Your task to perform on an android device: Show me some nice wallpapers for my phone Image 0: 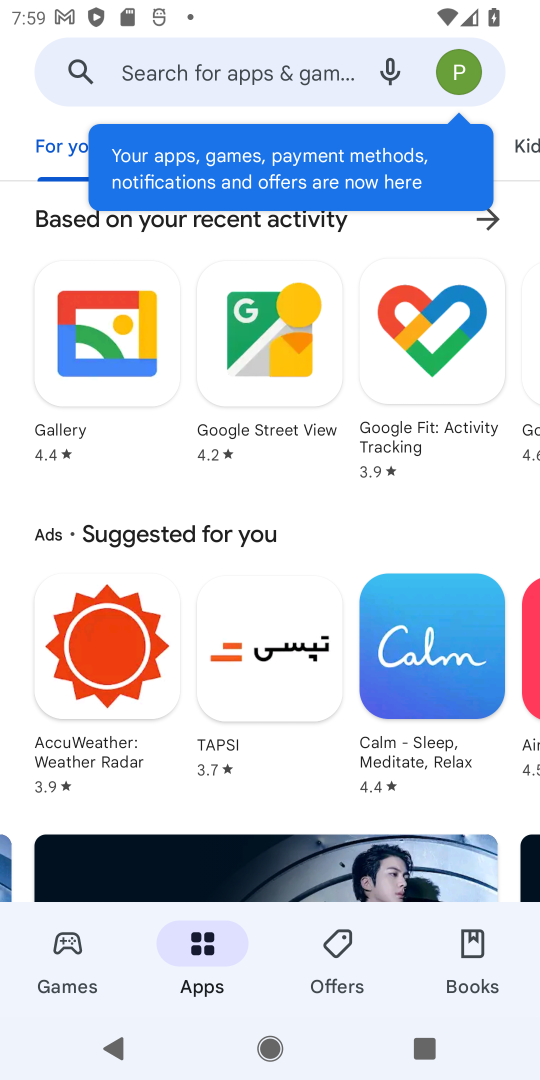
Step 0: click (252, 65)
Your task to perform on an android device: Show me some nice wallpapers for my phone Image 1: 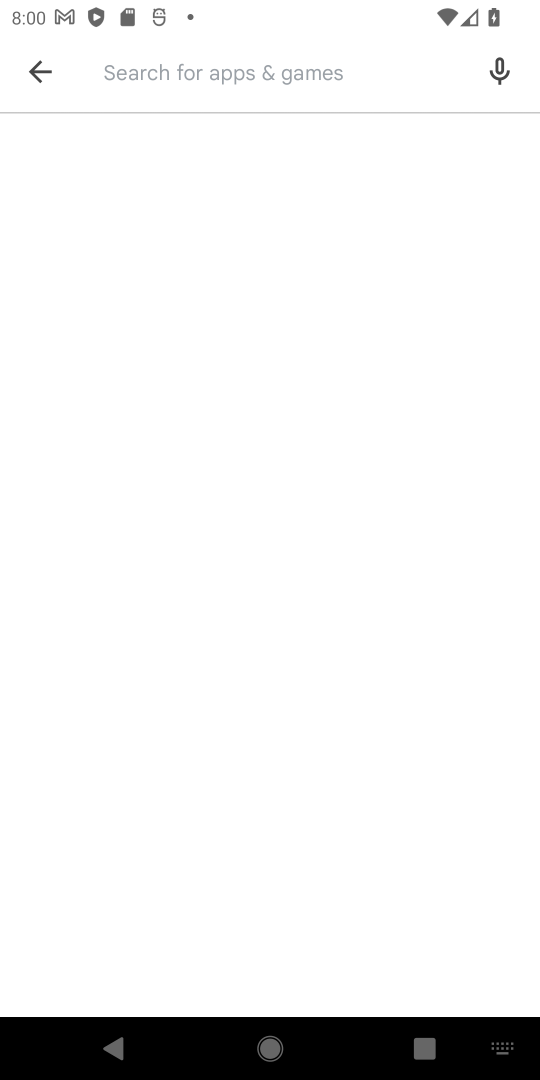
Step 1: type "some nice wallpapers for my phone"
Your task to perform on an android device: Show me some nice wallpapers for my phone Image 2: 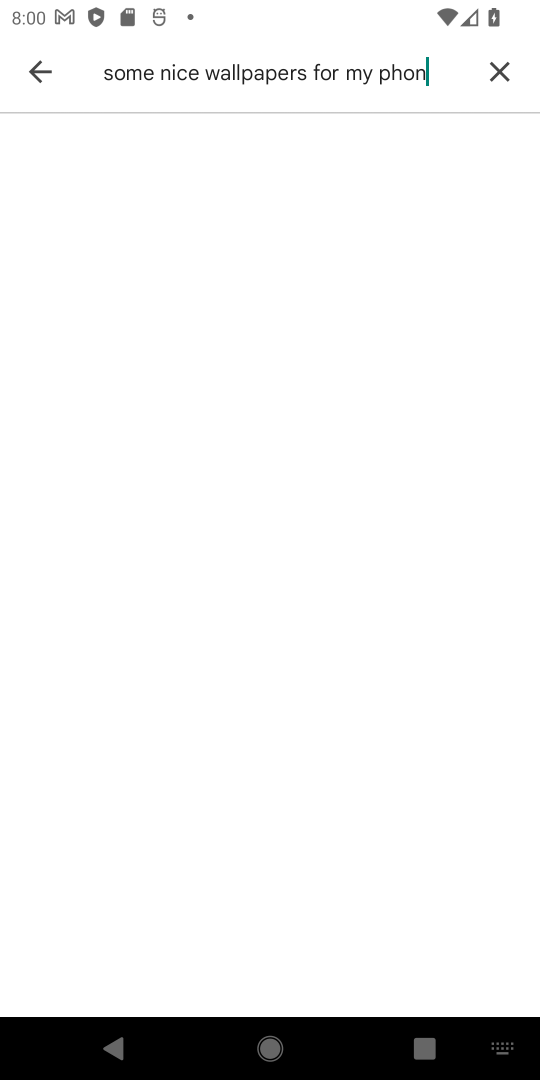
Step 2: type ""
Your task to perform on an android device: Show me some nice wallpapers for my phone Image 3: 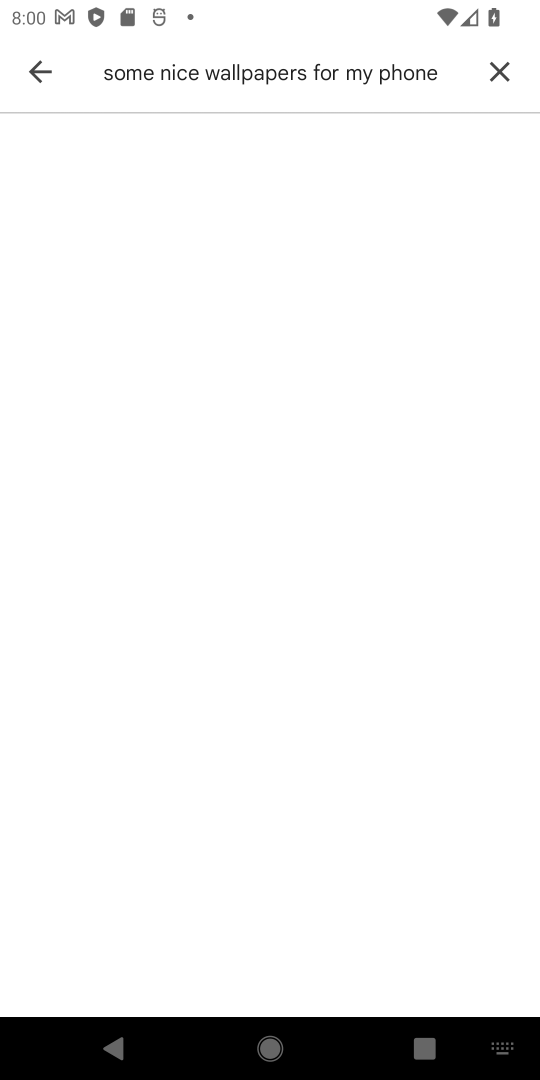
Step 3: type ""
Your task to perform on an android device: Show me some nice wallpapers for my phone Image 4: 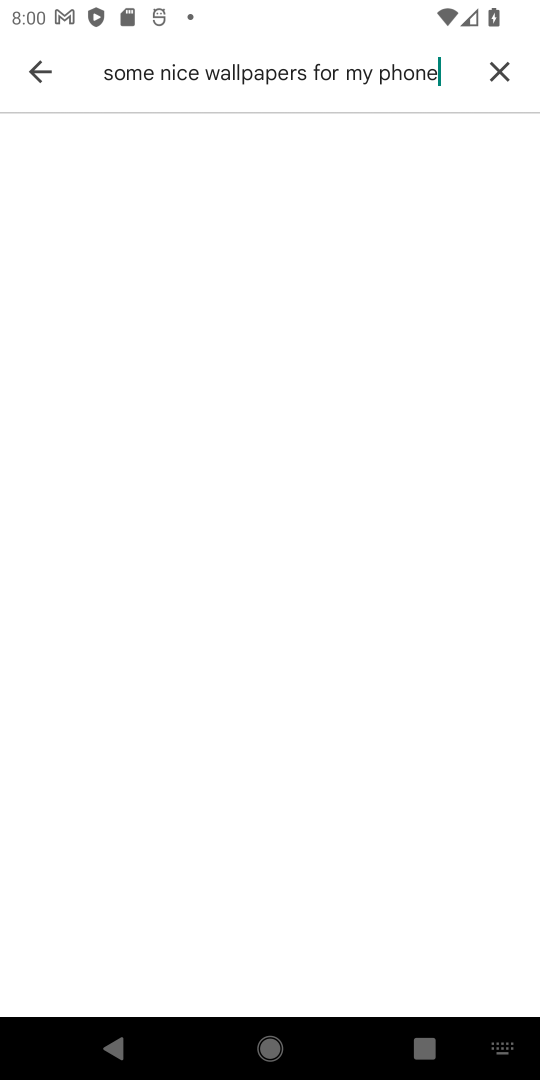
Step 4: type ""
Your task to perform on an android device: Show me some nice wallpapers for my phone Image 5: 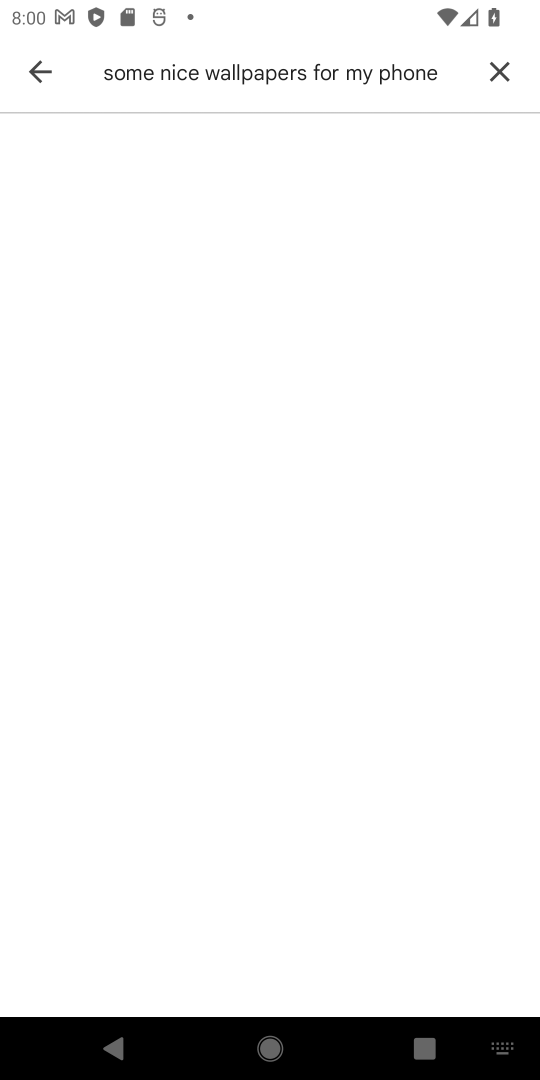
Step 5: press back button
Your task to perform on an android device: Show me some nice wallpapers for my phone Image 6: 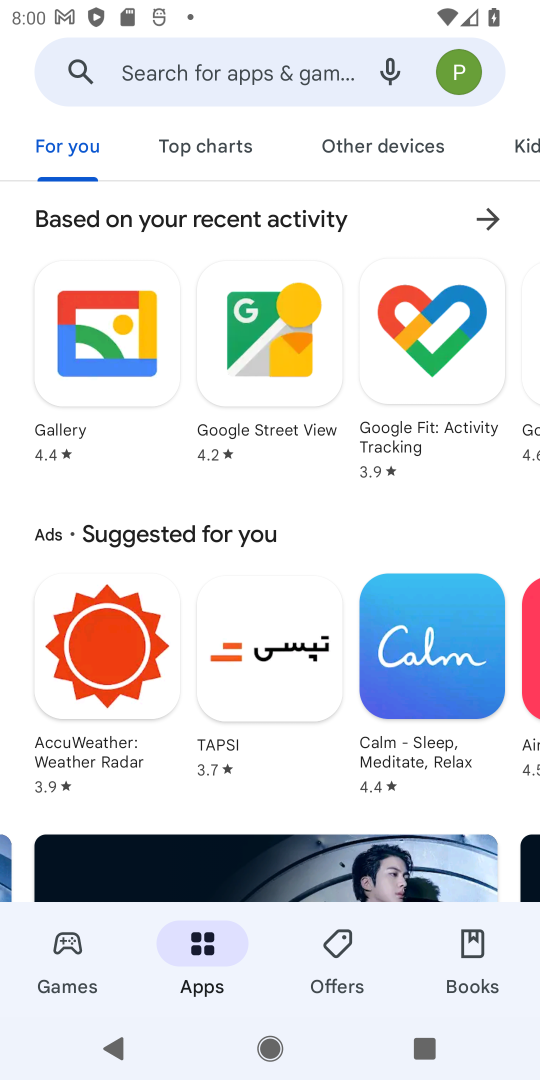
Step 6: press back button
Your task to perform on an android device: Show me some nice wallpapers for my phone Image 7: 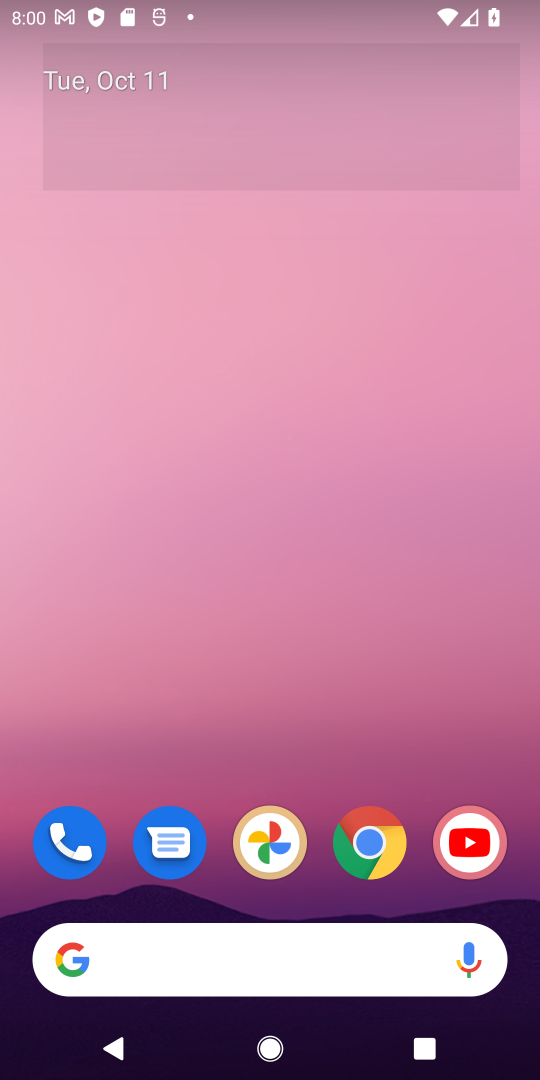
Step 7: click (377, 839)
Your task to perform on an android device: Show me some nice wallpapers for my phone Image 8: 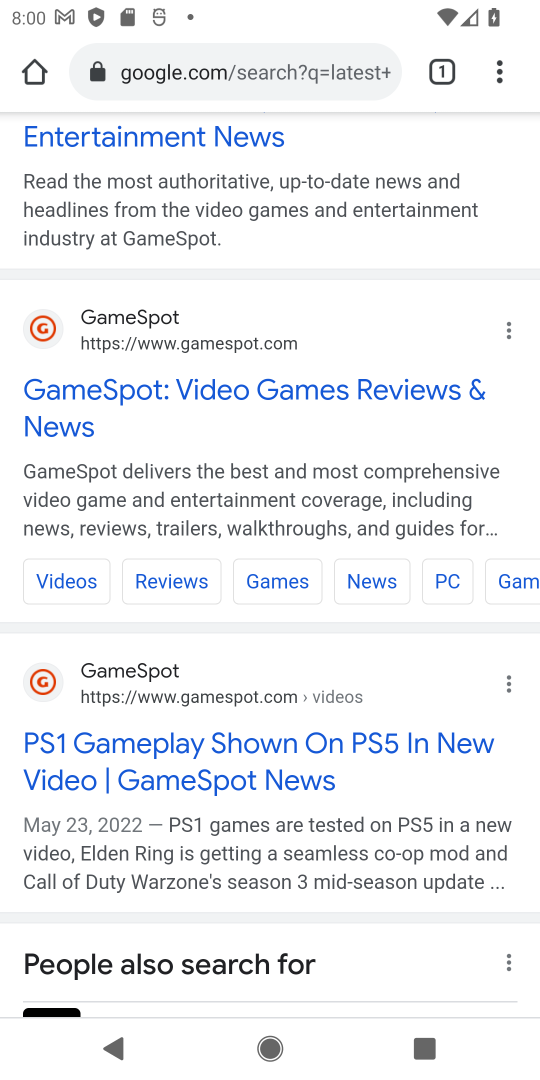
Step 8: click (215, 75)
Your task to perform on an android device: Show me some nice wallpapers for my phone Image 9: 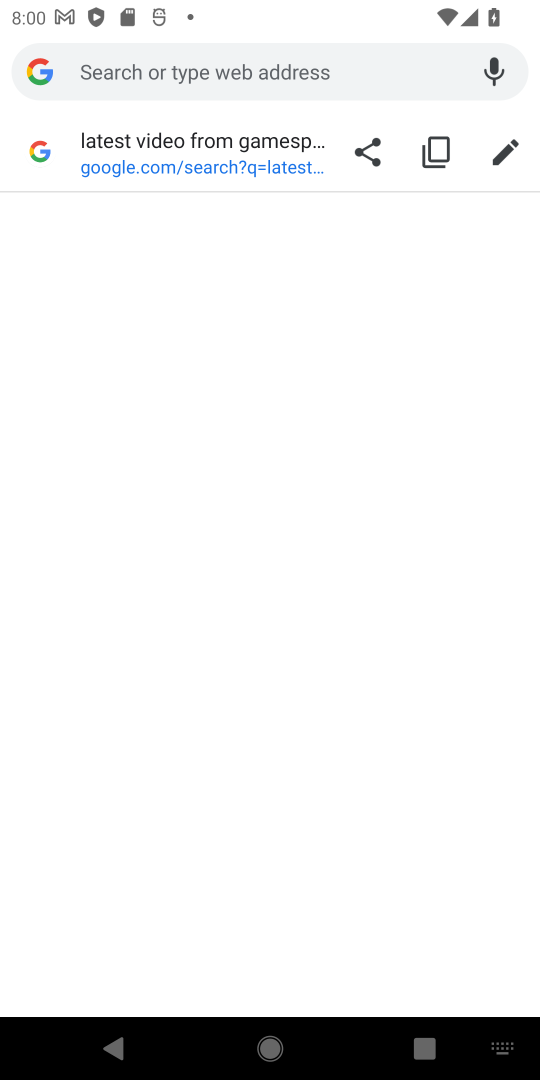
Step 9: type "some nice wallpapers for my phone"
Your task to perform on an android device: Show me some nice wallpapers for my phone Image 10: 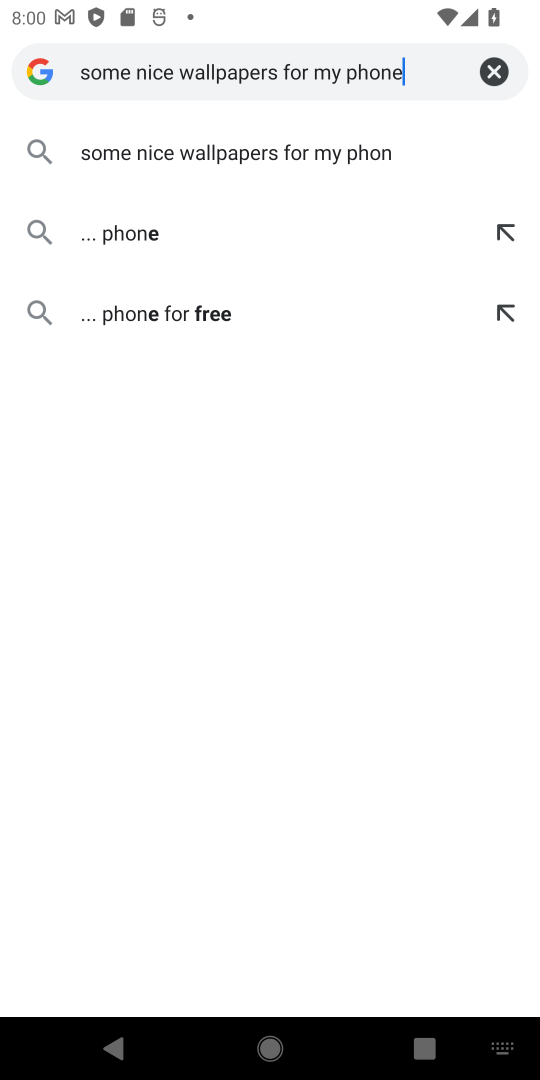
Step 10: type ""
Your task to perform on an android device: Show me some nice wallpapers for my phone Image 11: 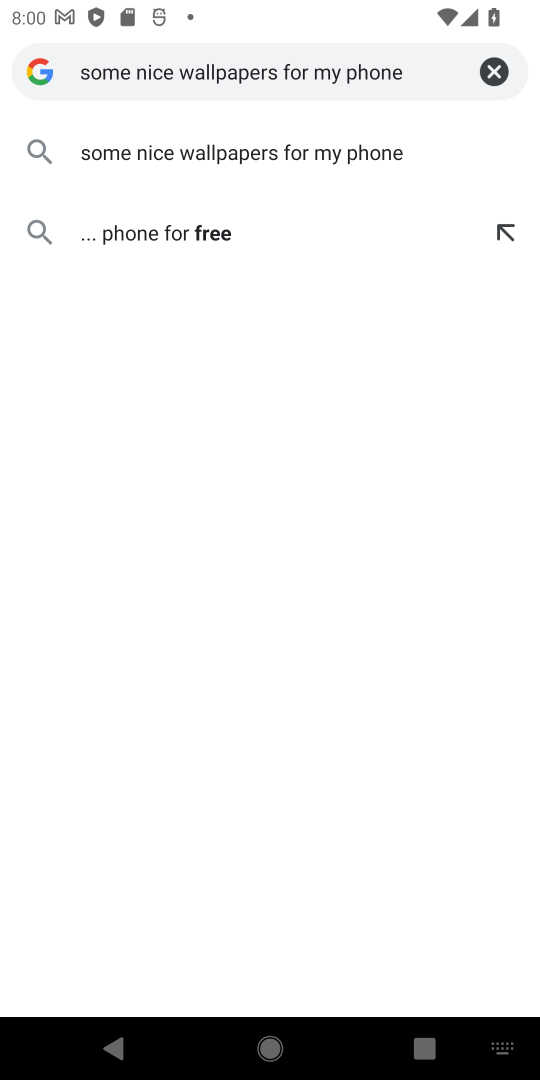
Step 11: click (250, 152)
Your task to perform on an android device: Show me some nice wallpapers for my phone Image 12: 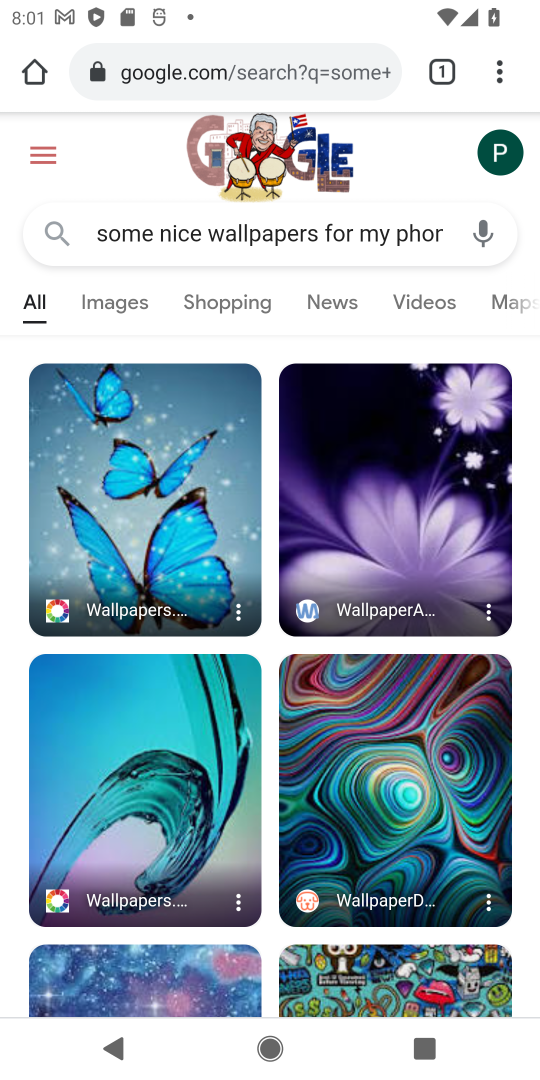
Step 12: drag from (212, 855) to (320, 52)
Your task to perform on an android device: Show me some nice wallpapers for my phone Image 13: 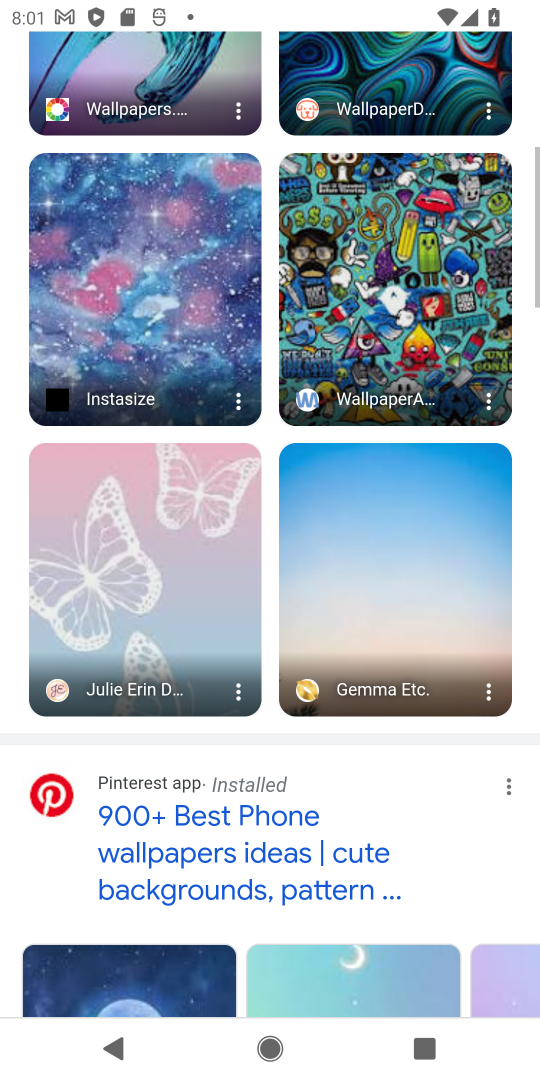
Step 13: drag from (347, 817) to (306, 286)
Your task to perform on an android device: Show me some nice wallpapers for my phone Image 14: 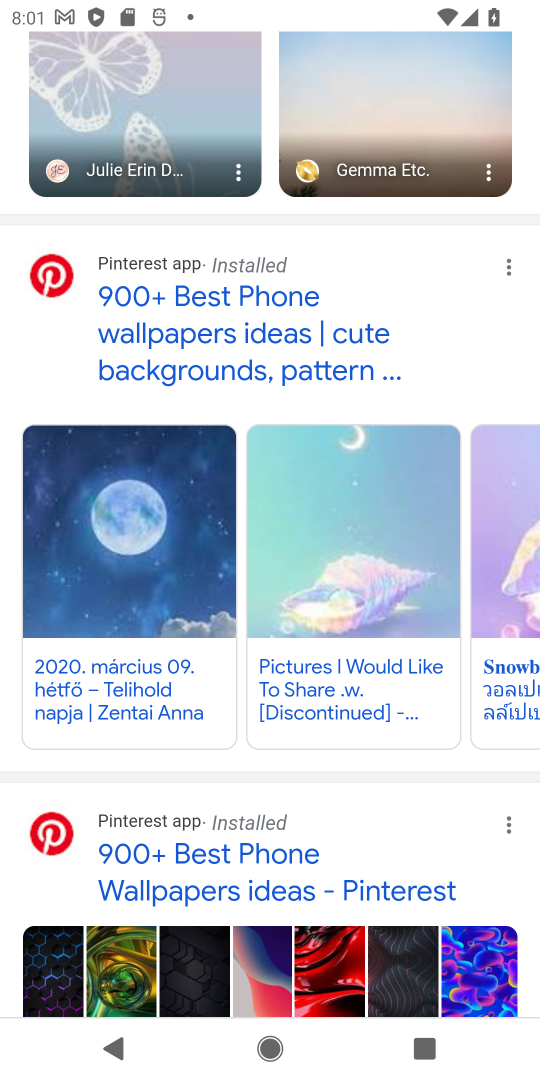
Step 14: drag from (317, 954) to (325, 394)
Your task to perform on an android device: Show me some nice wallpapers for my phone Image 15: 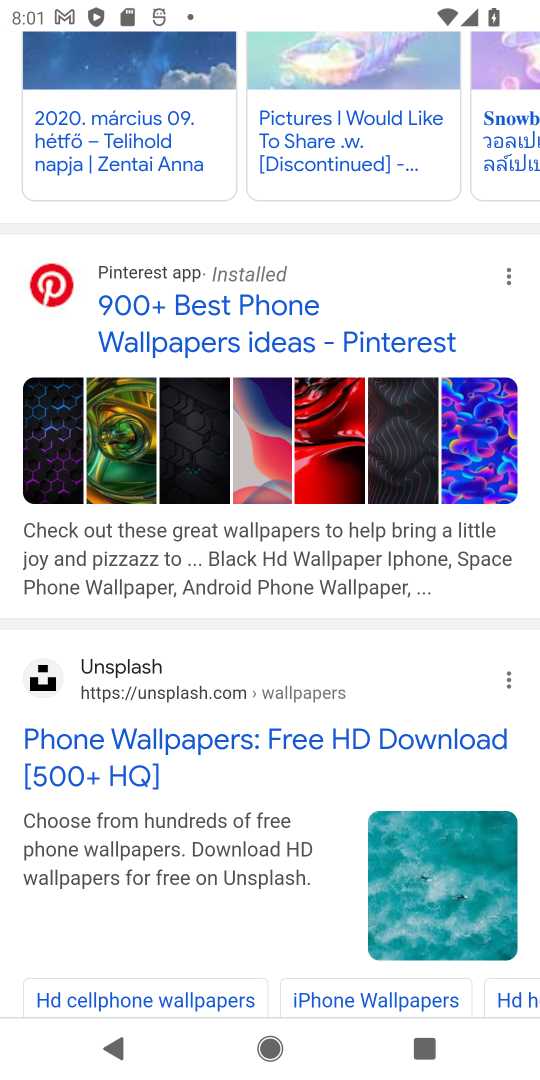
Step 15: drag from (253, 836) to (232, 438)
Your task to perform on an android device: Show me some nice wallpapers for my phone Image 16: 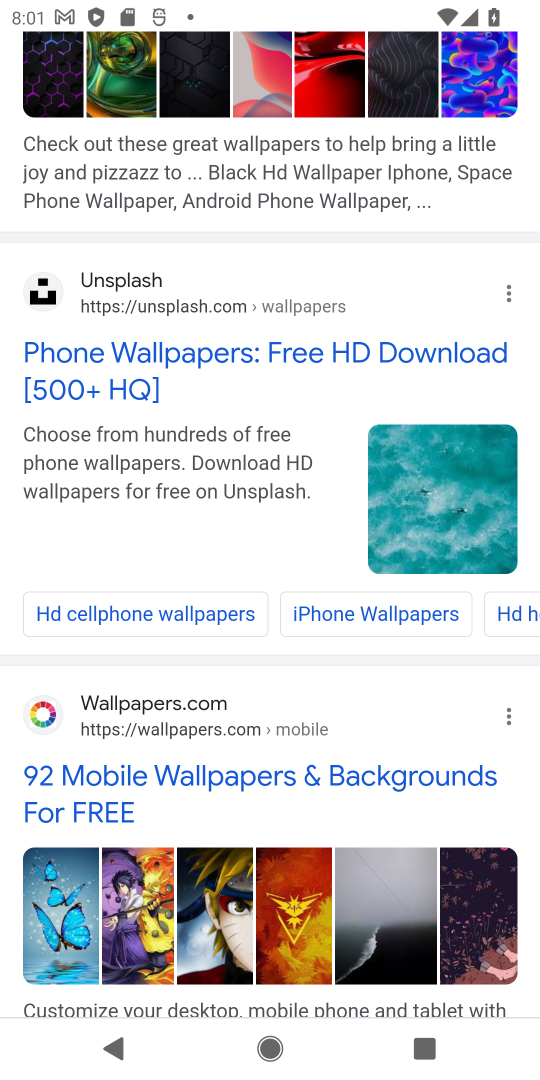
Step 16: drag from (210, 939) to (200, 396)
Your task to perform on an android device: Show me some nice wallpapers for my phone Image 17: 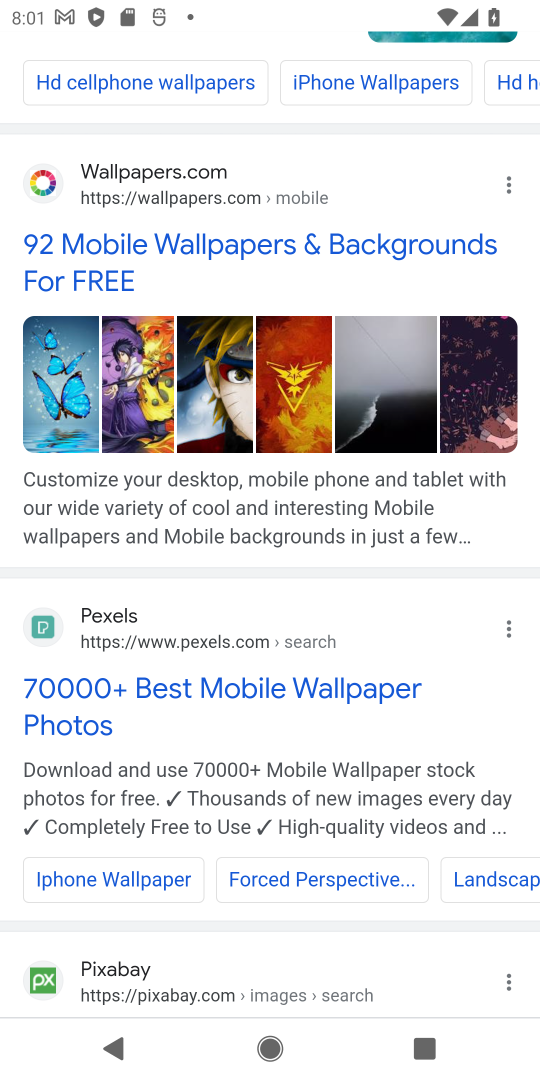
Step 17: drag from (263, 840) to (282, 484)
Your task to perform on an android device: Show me some nice wallpapers for my phone Image 18: 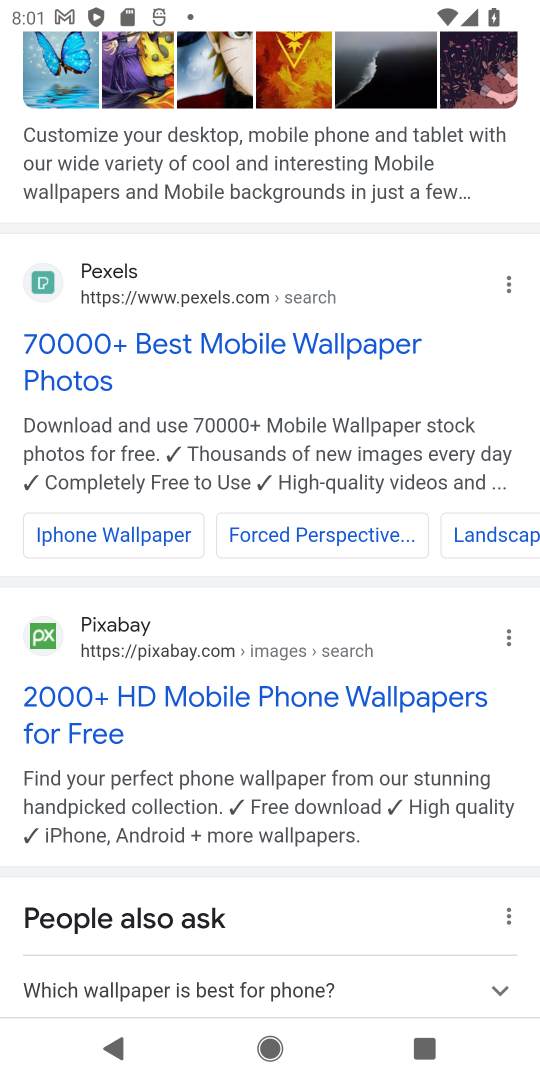
Step 18: drag from (236, 684) to (256, 17)
Your task to perform on an android device: Show me some nice wallpapers for my phone Image 19: 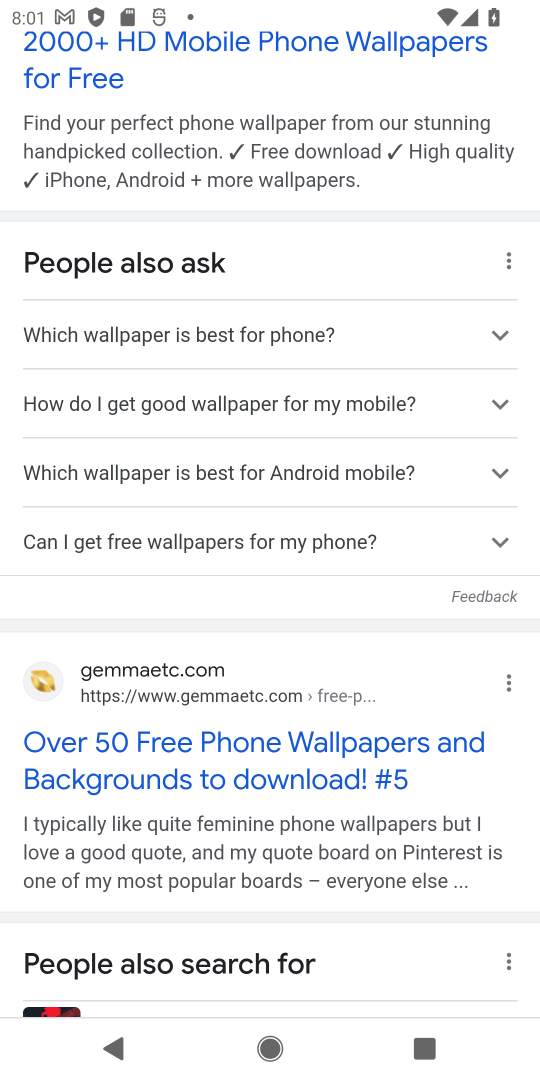
Step 19: drag from (325, 817) to (242, 266)
Your task to perform on an android device: Show me some nice wallpapers for my phone Image 20: 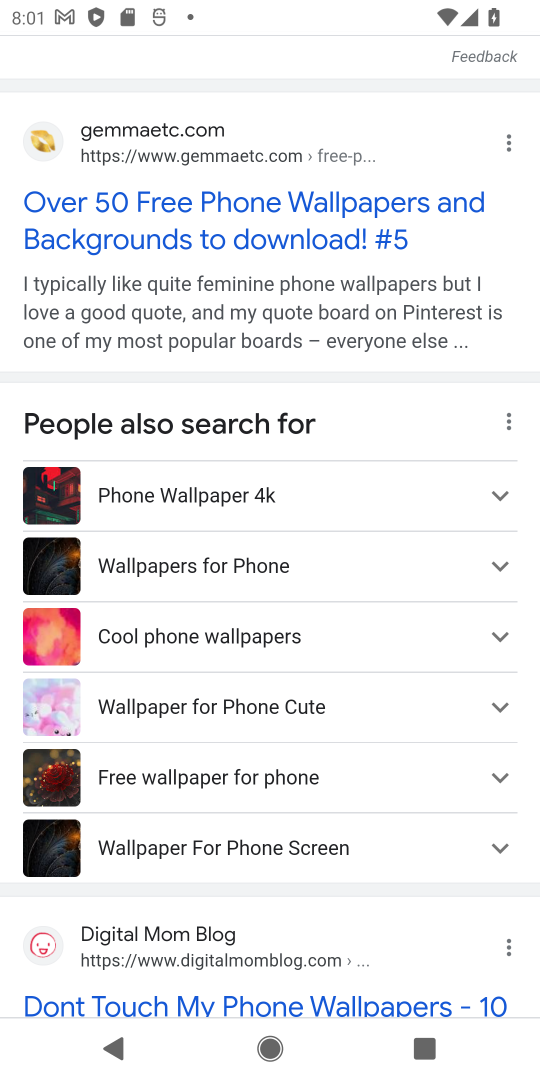
Step 20: click (136, 564)
Your task to perform on an android device: Show me some nice wallpapers for my phone Image 21: 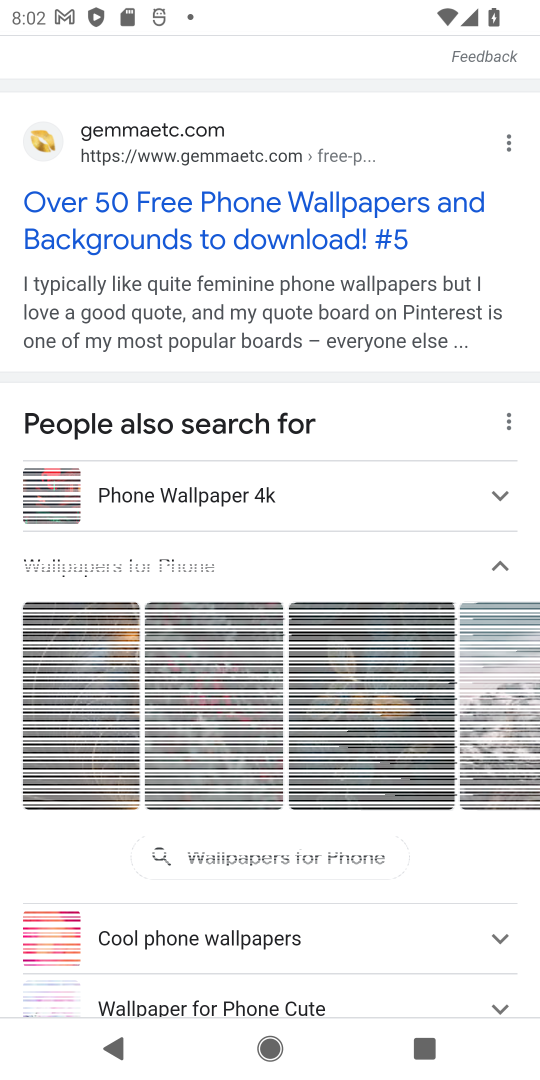
Step 21: task complete